Your task to perform on an android device: change notifications settings Image 0: 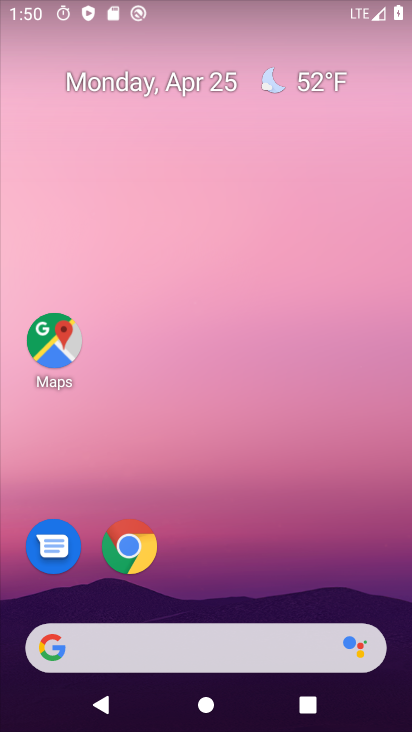
Step 0: drag from (190, 641) to (189, 103)
Your task to perform on an android device: change notifications settings Image 1: 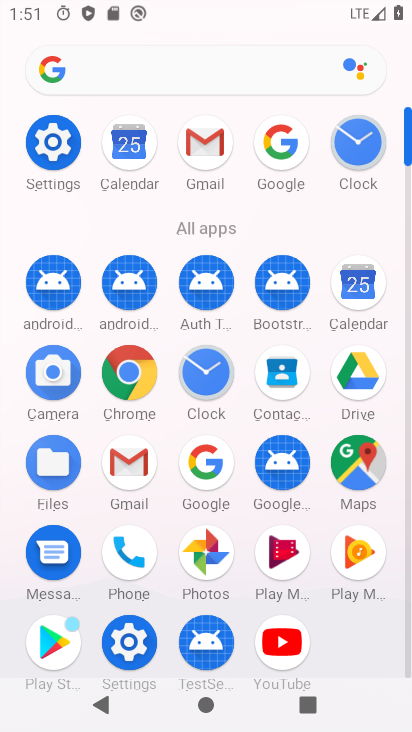
Step 1: click (133, 648)
Your task to perform on an android device: change notifications settings Image 2: 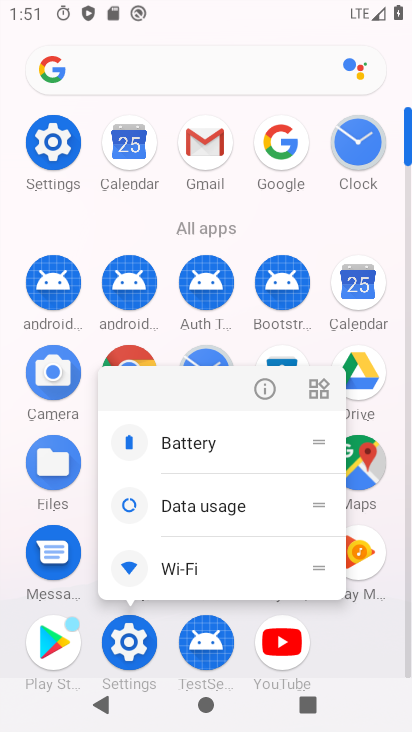
Step 2: click (136, 651)
Your task to perform on an android device: change notifications settings Image 3: 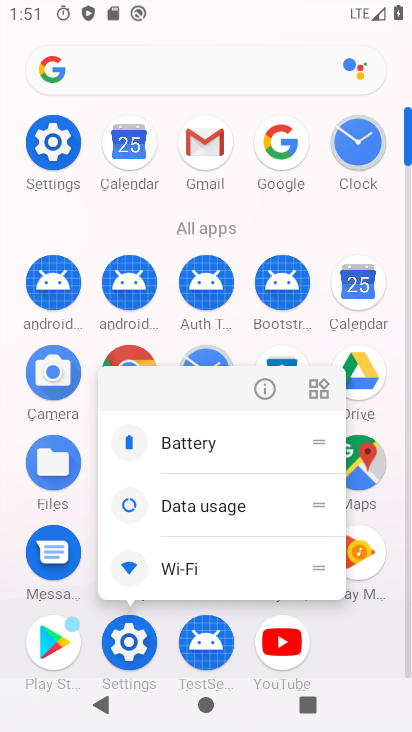
Step 3: click (145, 670)
Your task to perform on an android device: change notifications settings Image 4: 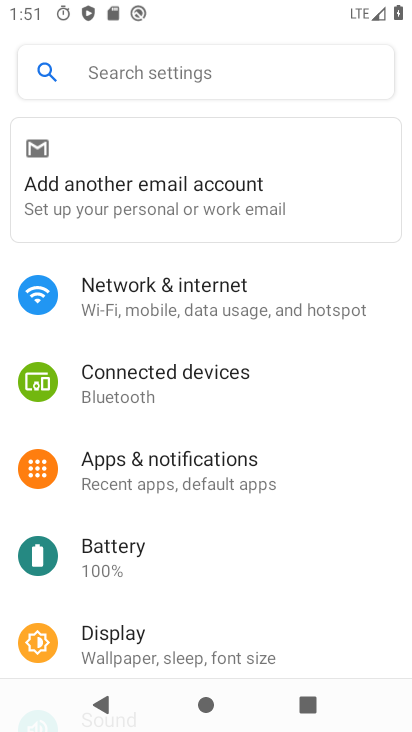
Step 4: drag from (198, 537) to (36, 35)
Your task to perform on an android device: change notifications settings Image 5: 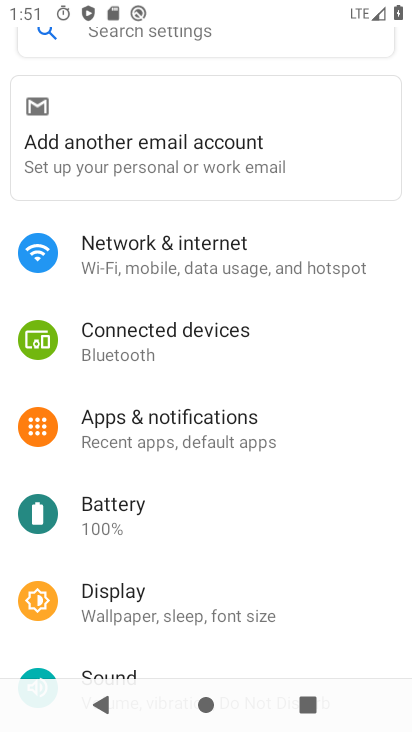
Step 5: drag from (133, 611) to (109, 132)
Your task to perform on an android device: change notifications settings Image 6: 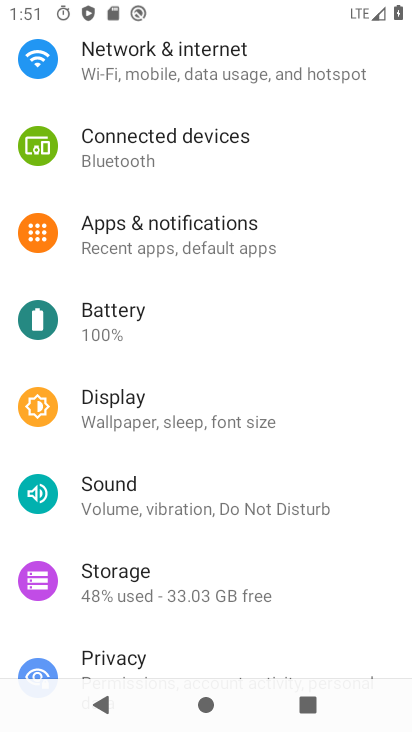
Step 6: click (125, 507)
Your task to perform on an android device: change notifications settings Image 7: 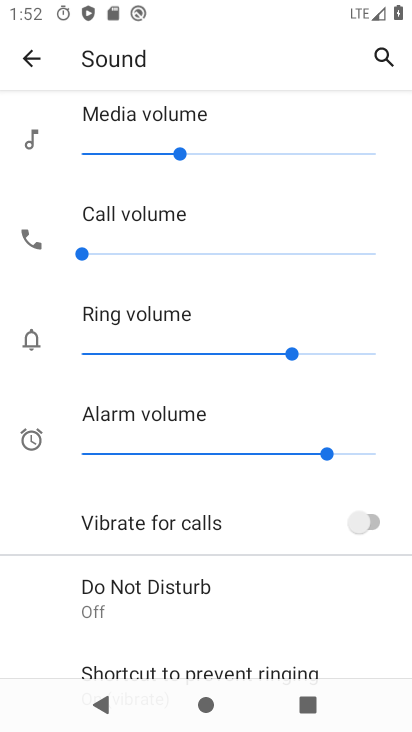
Step 7: click (364, 527)
Your task to perform on an android device: change notifications settings Image 8: 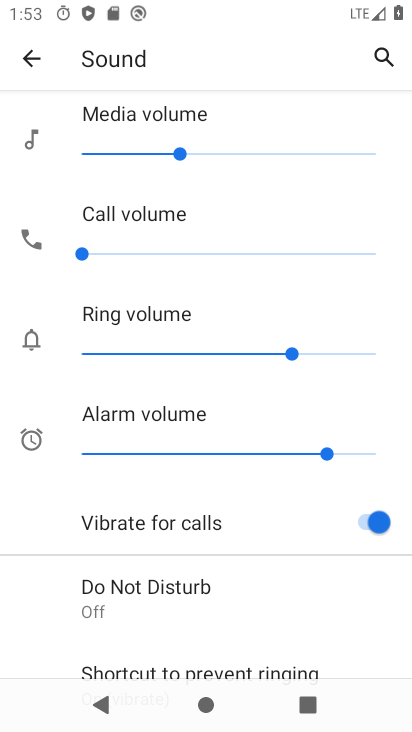
Step 8: task complete